Your task to perform on an android device: open app "LinkedIn" (install if not already installed) and enter user name: "dirt@inbox.com" and password: "receptionist" Image 0: 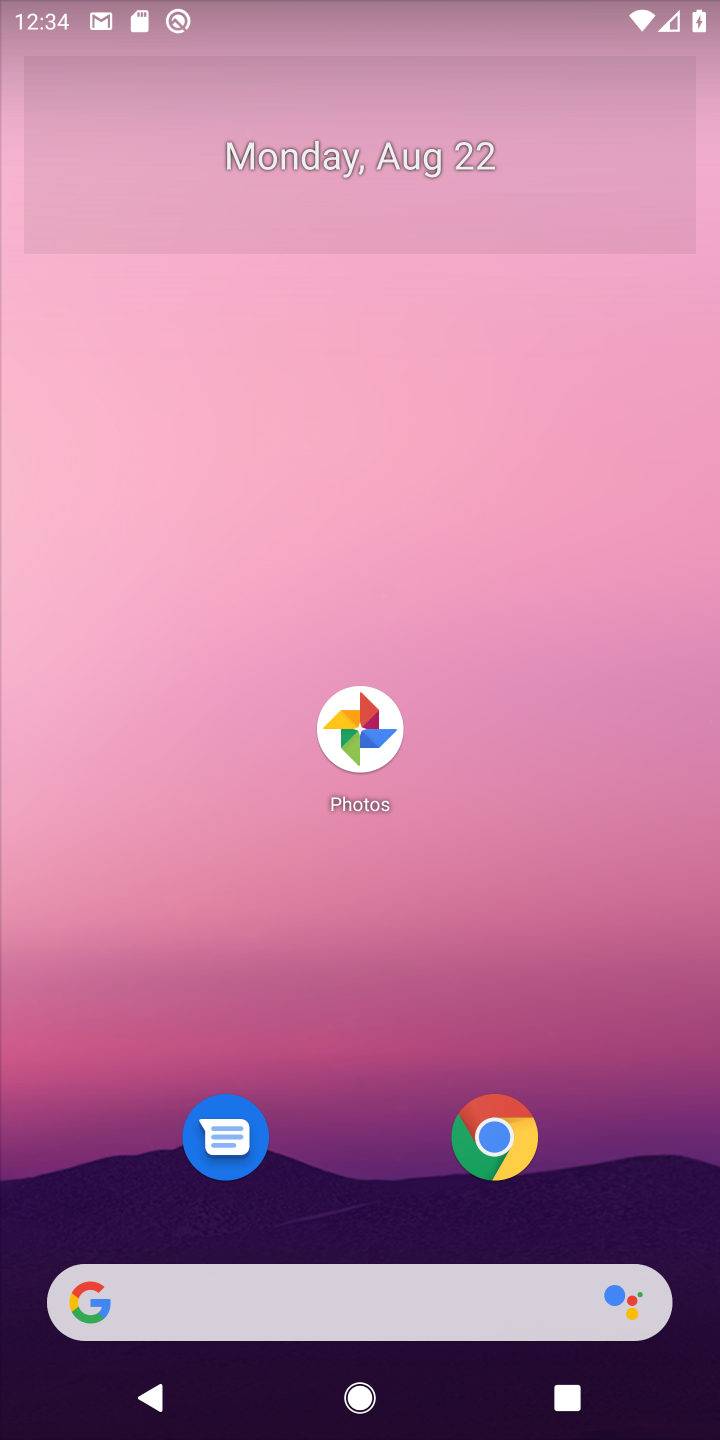
Step 0: drag from (630, 1213) to (581, 61)
Your task to perform on an android device: open app "LinkedIn" (install if not already installed) and enter user name: "dirt@inbox.com" and password: "receptionist" Image 1: 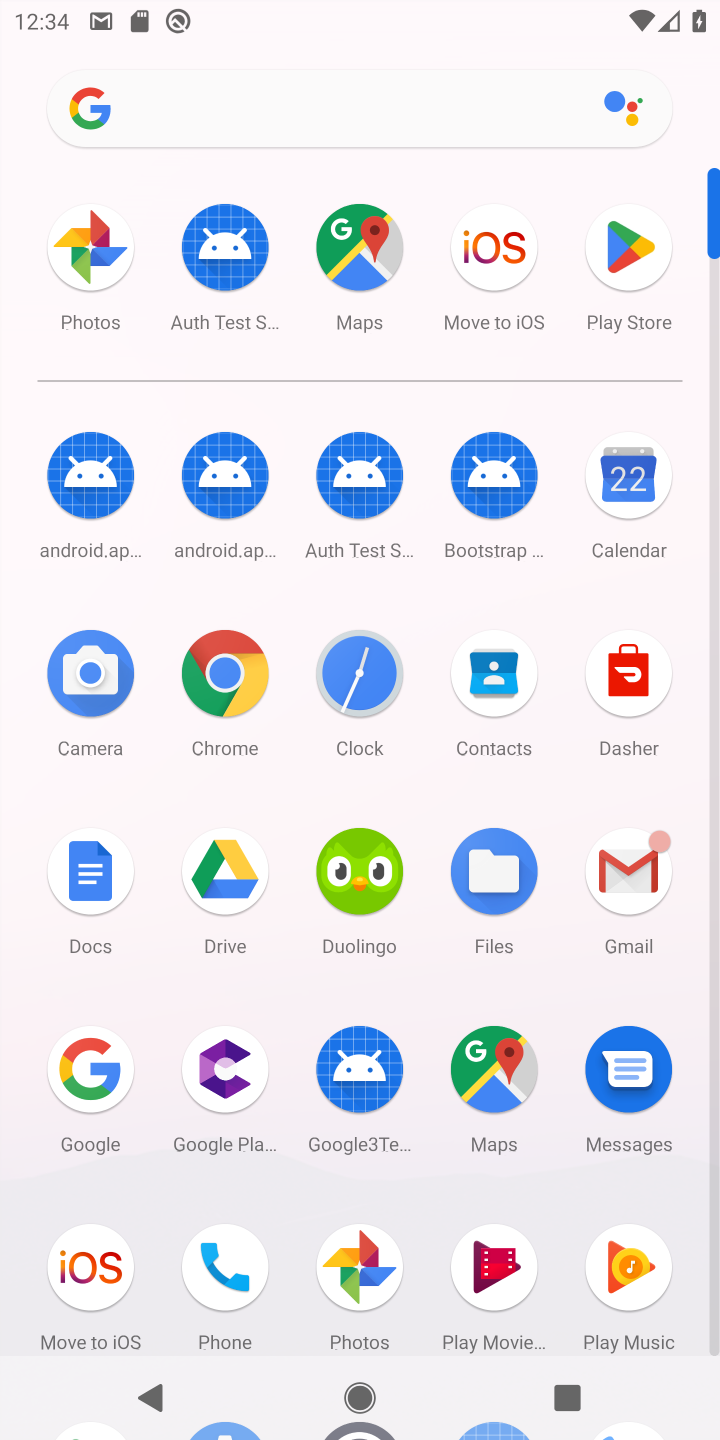
Step 1: drag from (280, 1199) to (288, 300)
Your task to perform on an android device: open app "LinkedIn" (install if not already installed) and enter user name: "dirt@inbox.com" and password: "receptionist" Image 2: 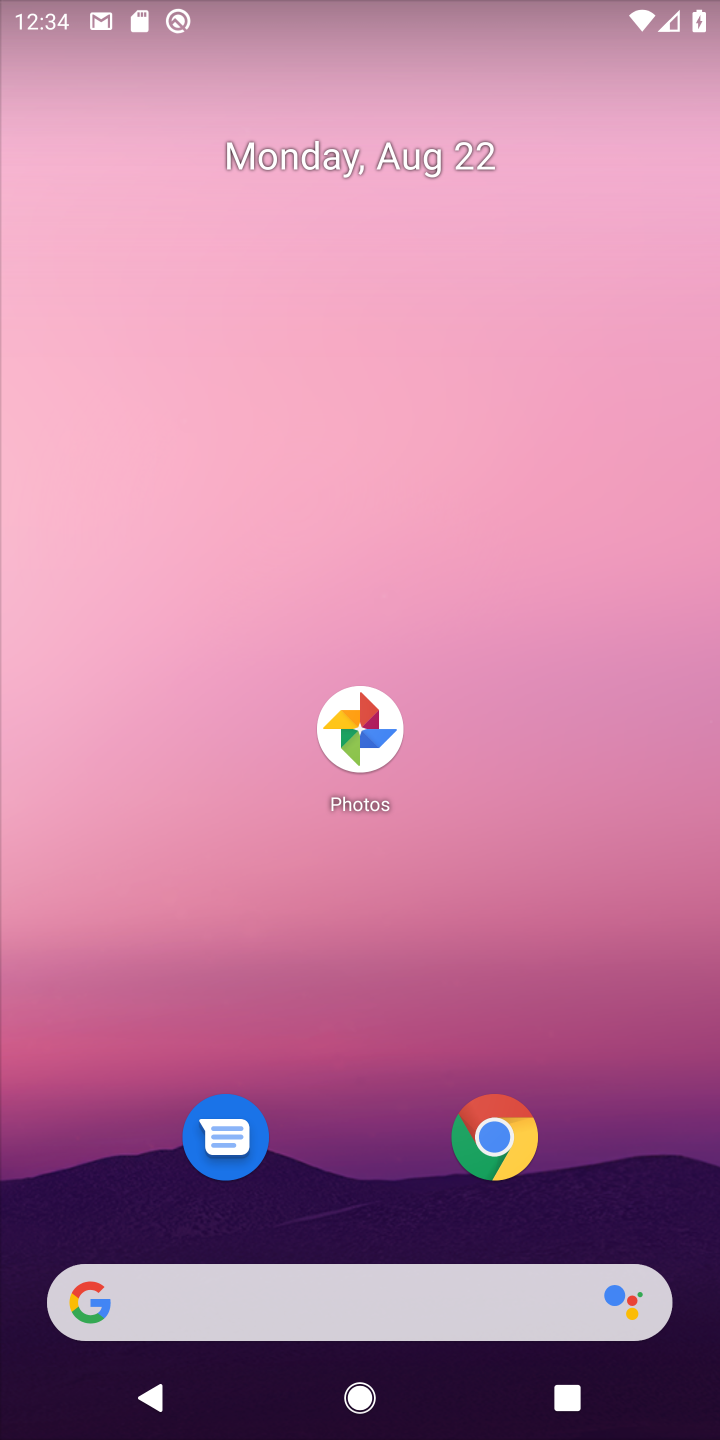
Step 2: drag from (315, 1049) to (315, 83)
Your task to perform on an android device: open app "LinkedIn" (install if not already installed) and enter user name: "dirt@inbox.com" and password: "receptionist" Image 3: 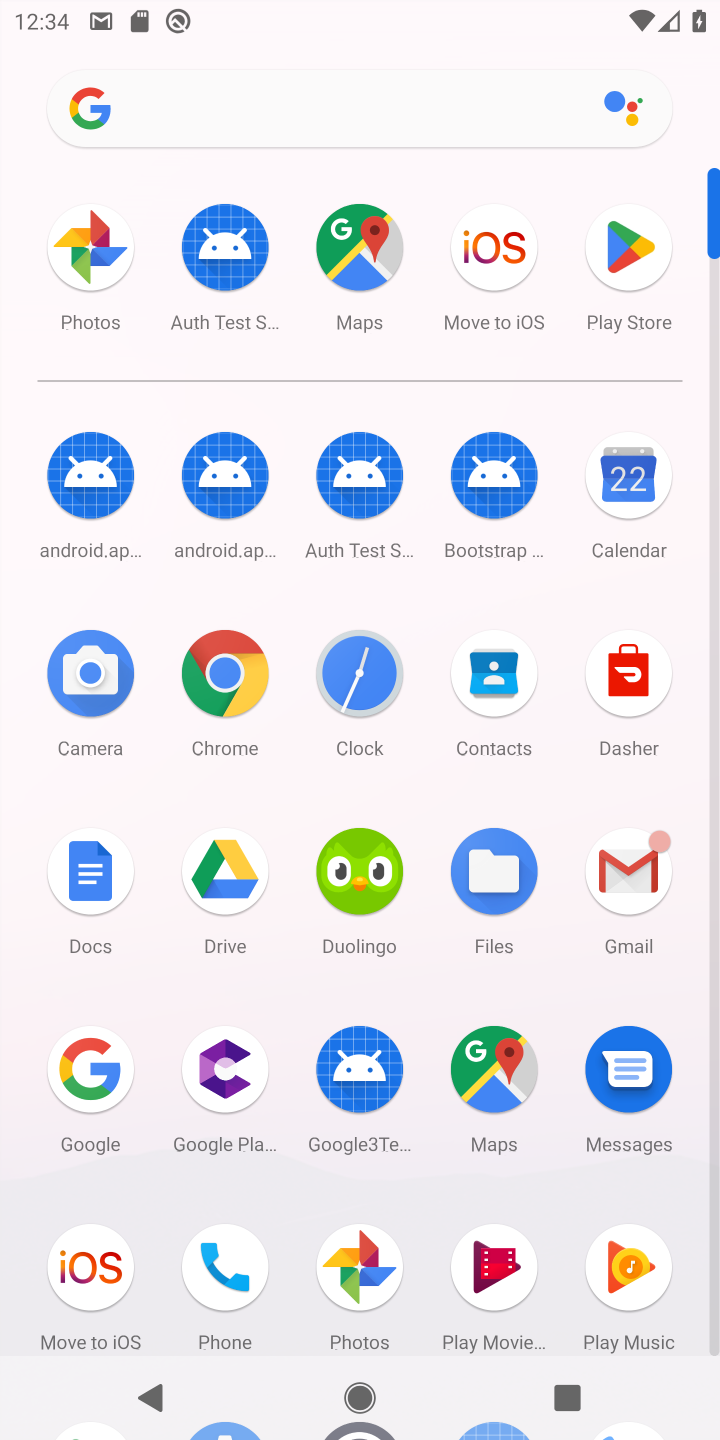
Step 3: drag from (290, 1203) to (297, 444)
Your task to perform on an android device: open app "LinkedIn" (install if not already installed) and enter user name: "dirt@inbox.com" and password: "receptionist" Image 4: 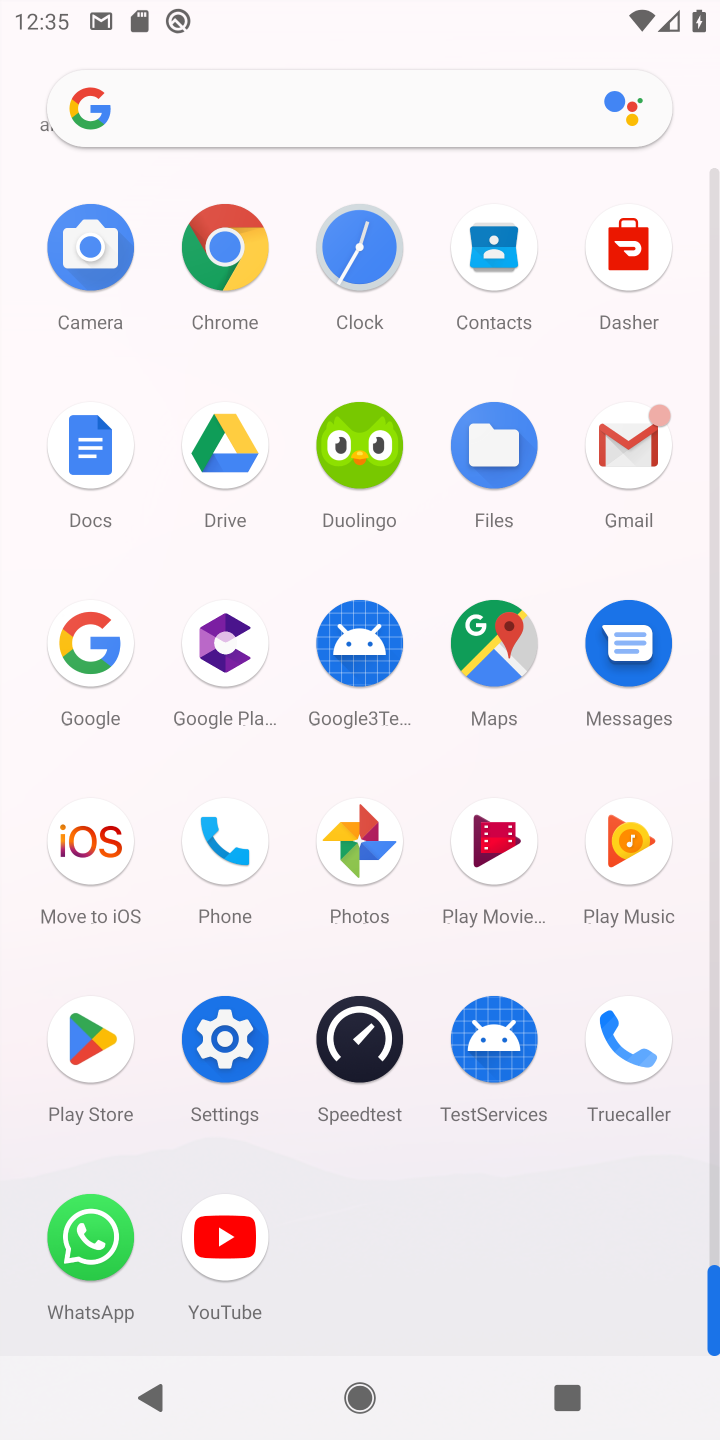
Step 4: click (91, 1038)
Your task to perform on an android device: open app "LinkedIn" (install if not already installed) and enter user name: "dirt@inbox.com" and password: "receptionist" Image 5: 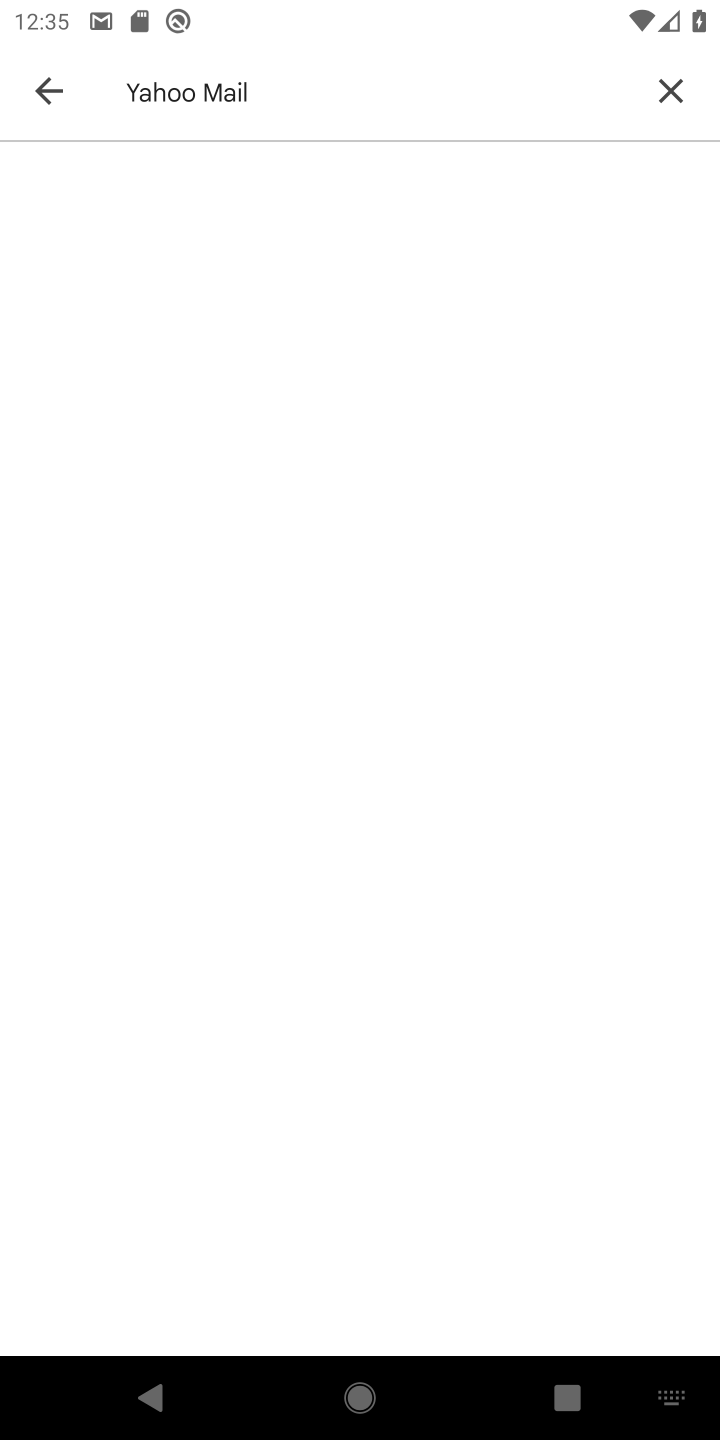
Step 5: click (665, 95)
Your task to perform on an android device: open app "LinkedIn" (install if not already installed) and enter user name: "dirt@inbox.com" and password: "receptionist" Image 6: 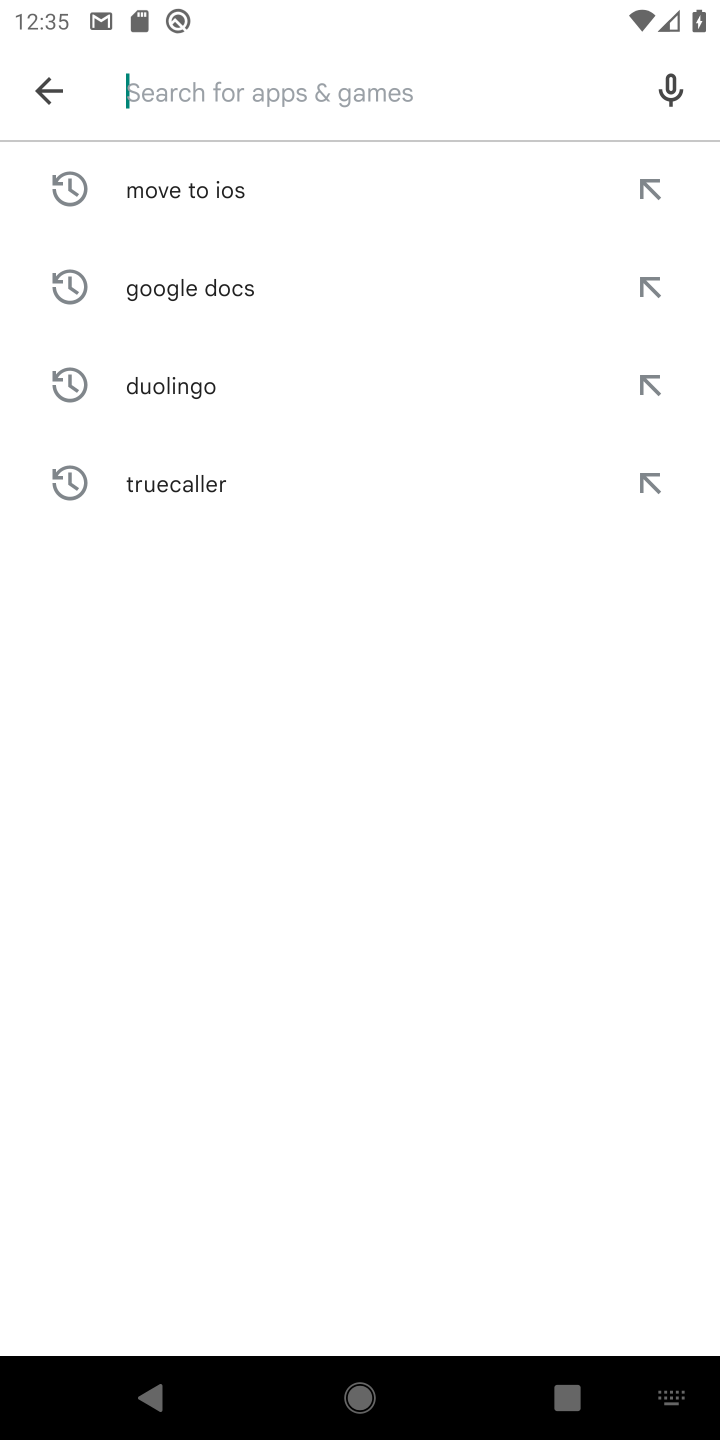
Step 6: type "Linkedin"
Your task to perform on an android device: open app "LinkedIn" (install if not already installed) and enter user name: "dirt@inbox.com" and password: "receptionist" Image 7: 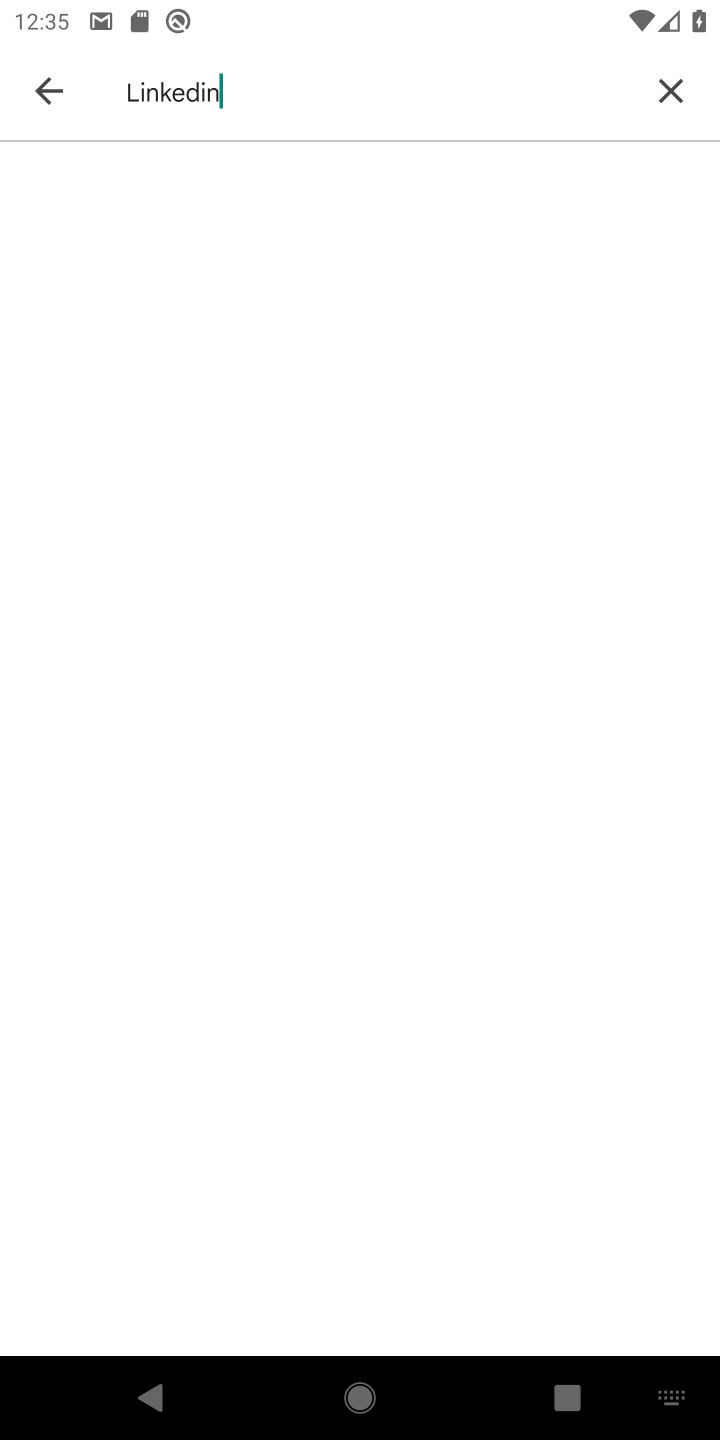
Step 7: task complete